Your task to perform on an android device: add a label to a message in the gmail app Image 0: 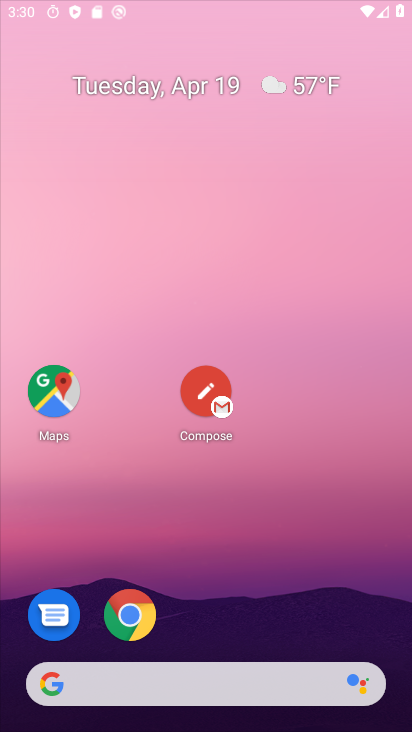
Step 0: click (356, 12)
Your task to perform on an android device: add a label to a message in the gmail app Image 1: 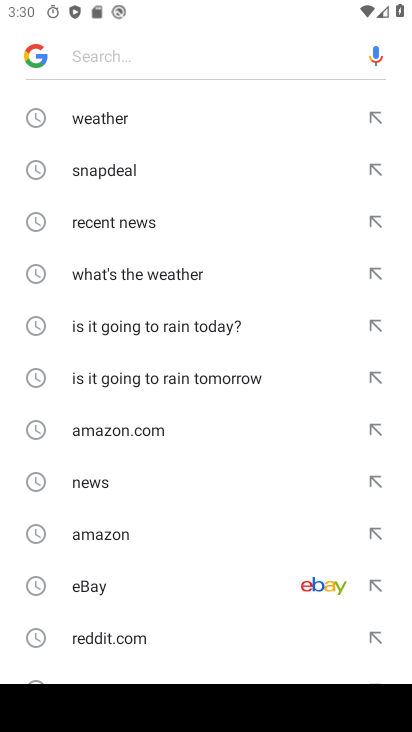
Step 1: press home button
Your task to perform on an android device: add a label to a message in the gmail app Image 2: 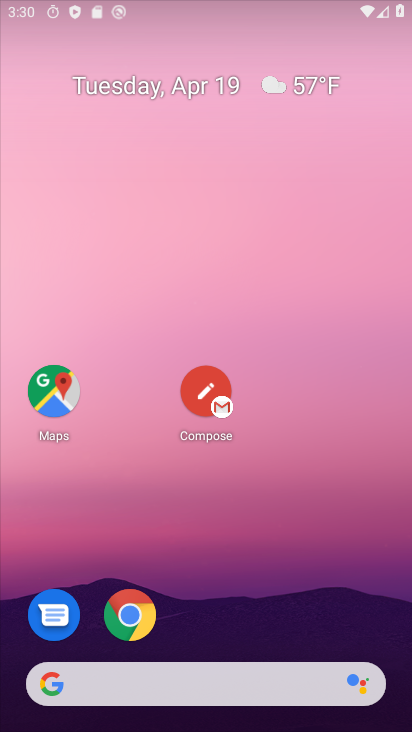
Step 2: drag from (222, 643) to (291, 34)
Your task to perform on an android device: add a label to a message in the gmail app Image 3: 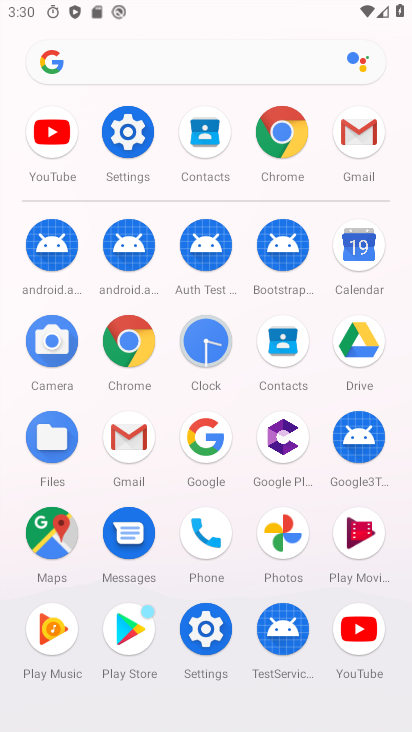
Step 3: click (122, 432)
Your task to perform on an android device: add a label to a message in the gmail app Image 4: 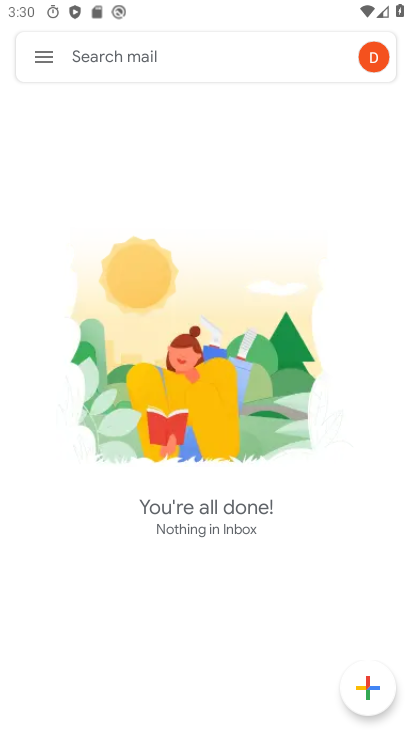
Step 4: click (45, 61)
Your task to perform on an android device: add a label to a message in the gmail app Image 5: 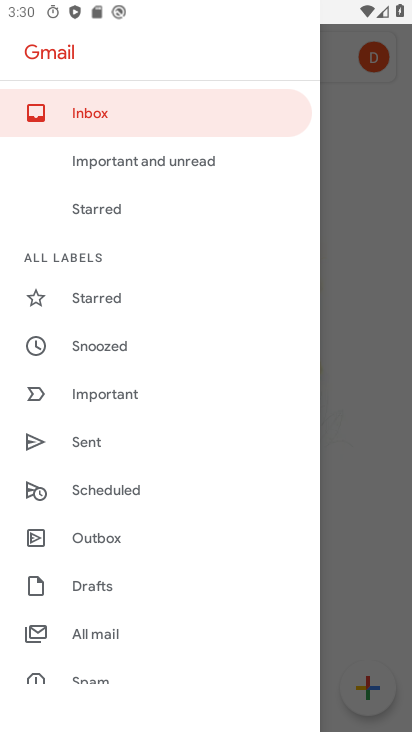
Step 5: click (344, 295)
Your task to perform on an android device: add a label to a message in the gmail app Image 6: 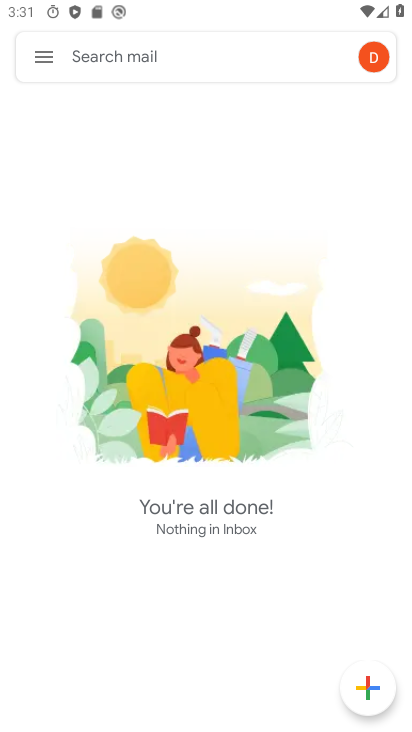
Step 6: task complete